Your task to perform on an android device: Open settings on Google Maps Image 0: 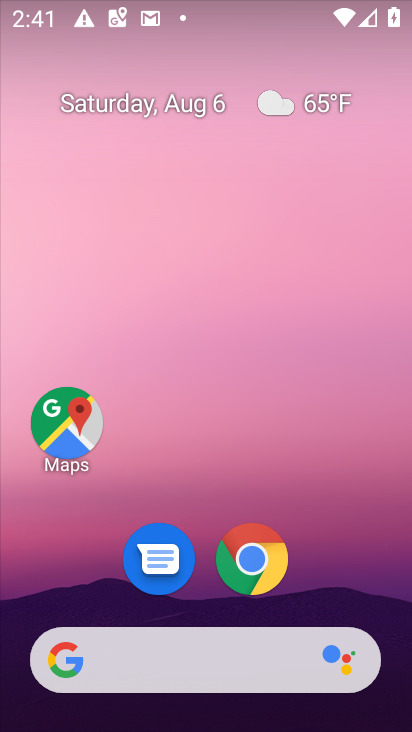
Step 0: click (47, 433)
Your task to perform on an android device: Open settings on Google Maps Image 1: 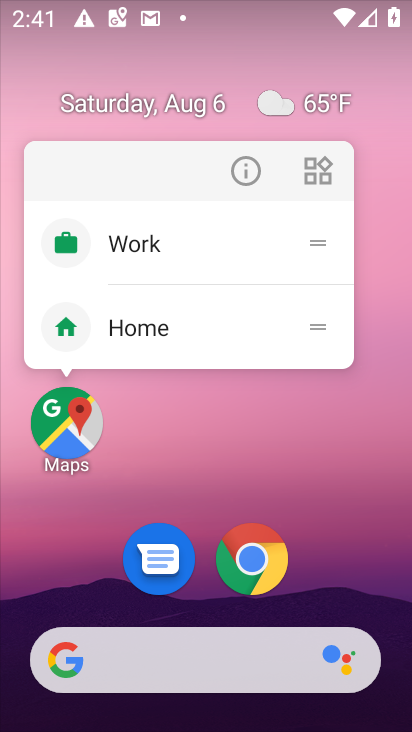
Step 1: click (64, 440)
Your task to perform on an android device: Open settings on Google Maps Image 2: 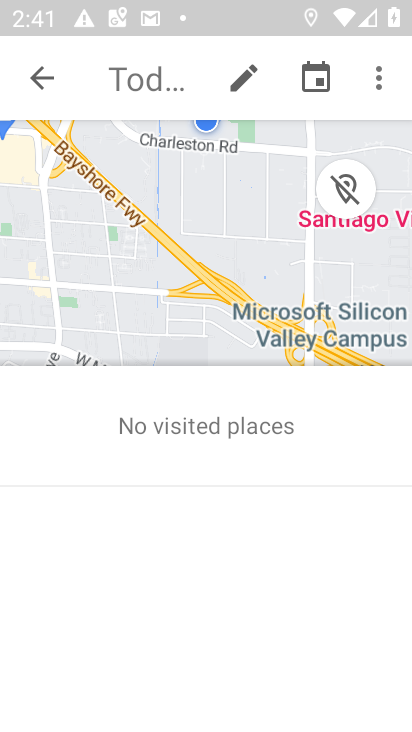
Step 2: click (40, 85)
Your task to perform on an android device: Open settings on Google Maps Image 3: 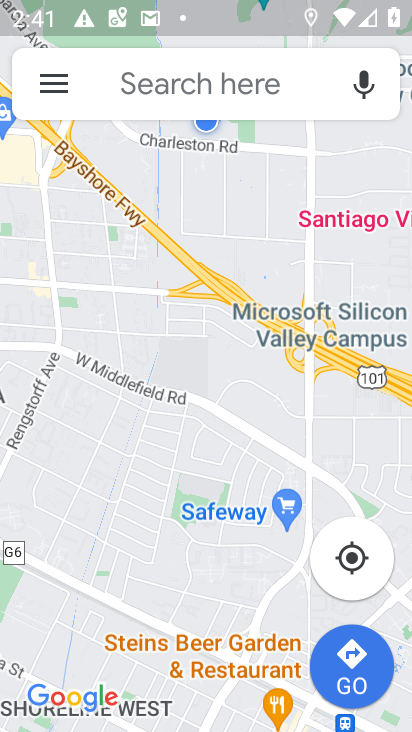
Step 3: click (47, 75)
Your task to perform on an android device: Open settings on Google Maps Image 4: 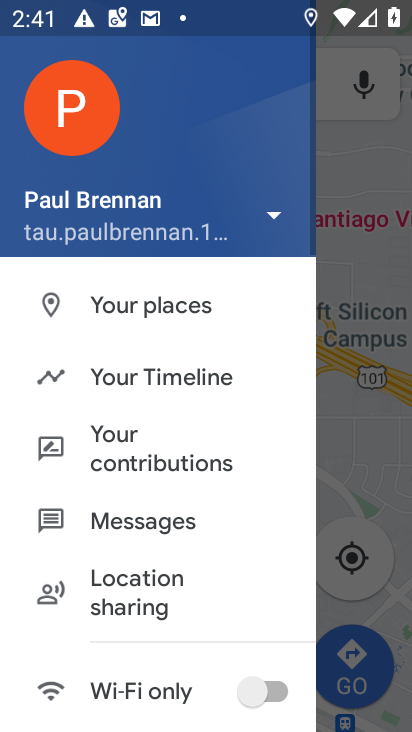
Step 4: drag from (139, 499) to (139, 265)
Your task to perform on an android device: Open settings on Google Maps Image 5: 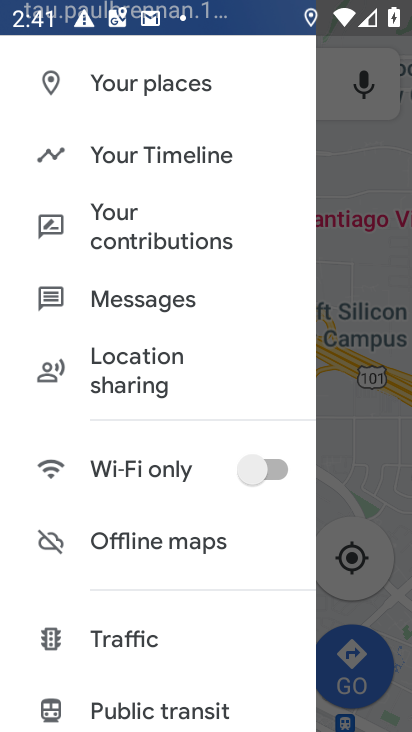
Step 5: drag from (135, 669) to (160, 319)
Your task to perform on an android device: Open settings on Google Maps Image 6: 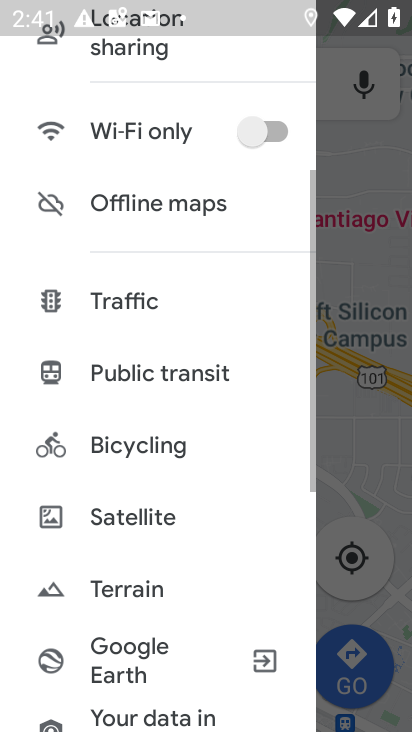
Step 6: drag from (105, 599) to (105, 296)
Your task to perform on an android device: Open settings on Google Maps Image 7: 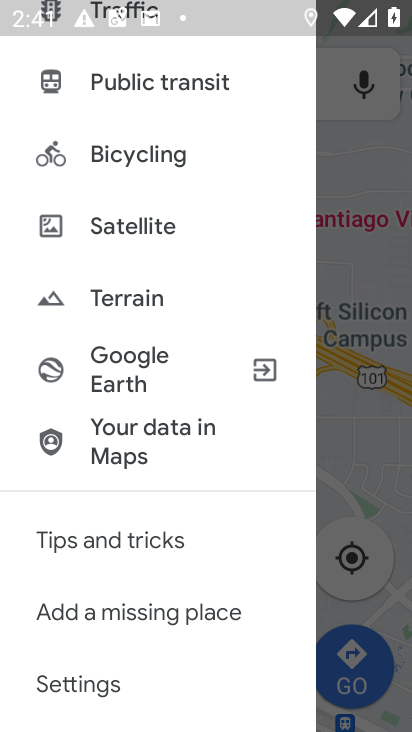
Step 7: click (85, 686)
Your task to perform on an android device: Open settings on Google Maps Image 8: 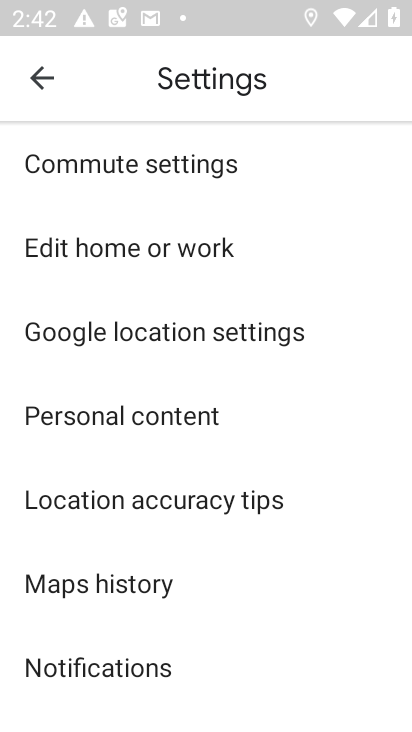
Step 8: click (50, 74)
Your task to perform on an android device: Open settings on Google Maps Image 9: 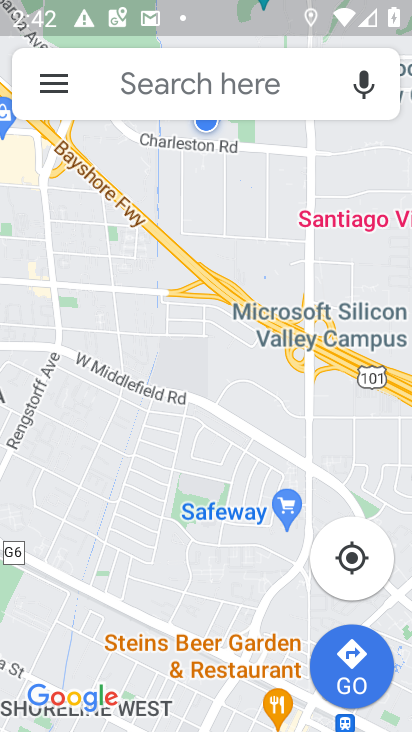
Step 9: task complete